Your task to perform on an android device: open app "Messages" (install if not already installed) and enter user name: "Hersey@inbox.com" and password: "facings" Image 0: 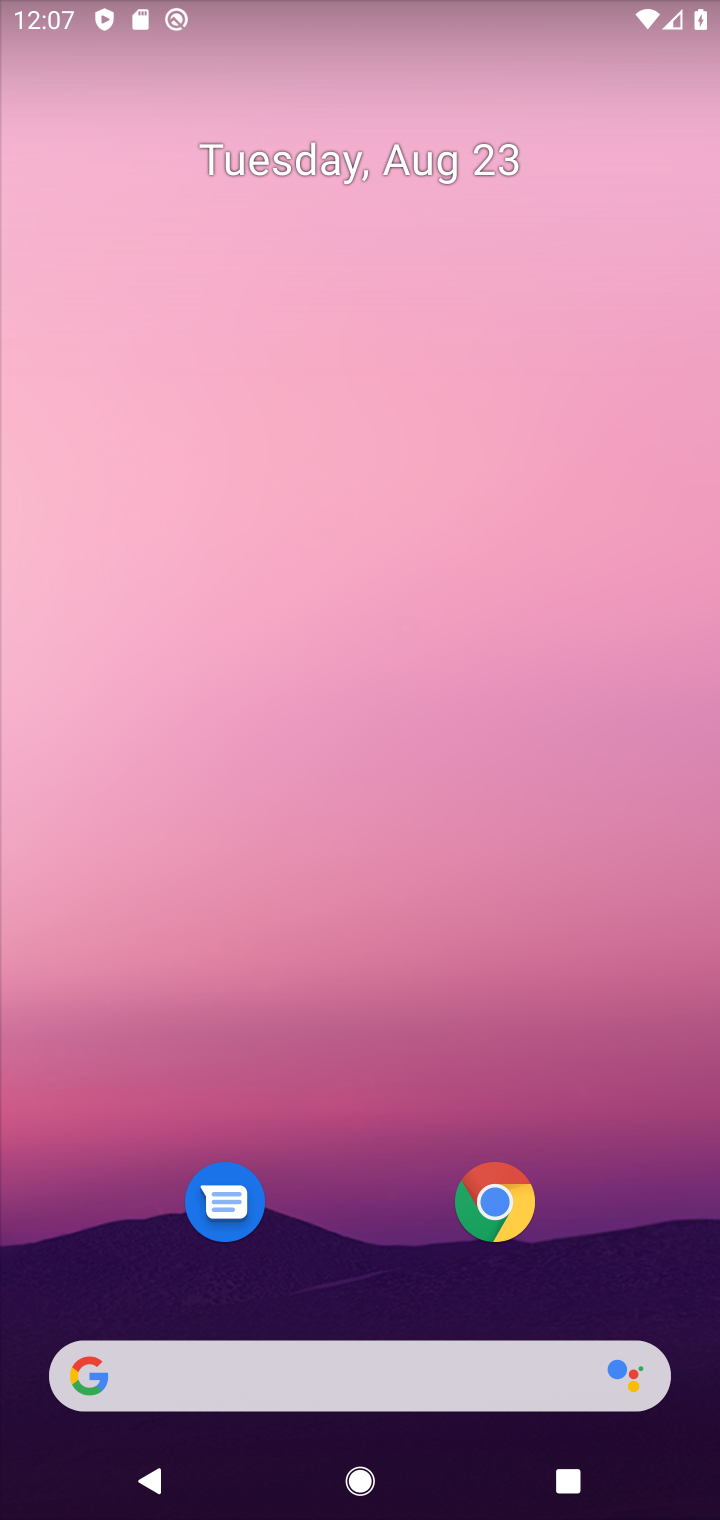
Step 0: drag from (310, 1364) to (340, 263)
Your task to perform on an android device: open app "Messages" (install if not already installed) and enter user name: "Hersey@inbox.com" and password: "facings" Image 1: 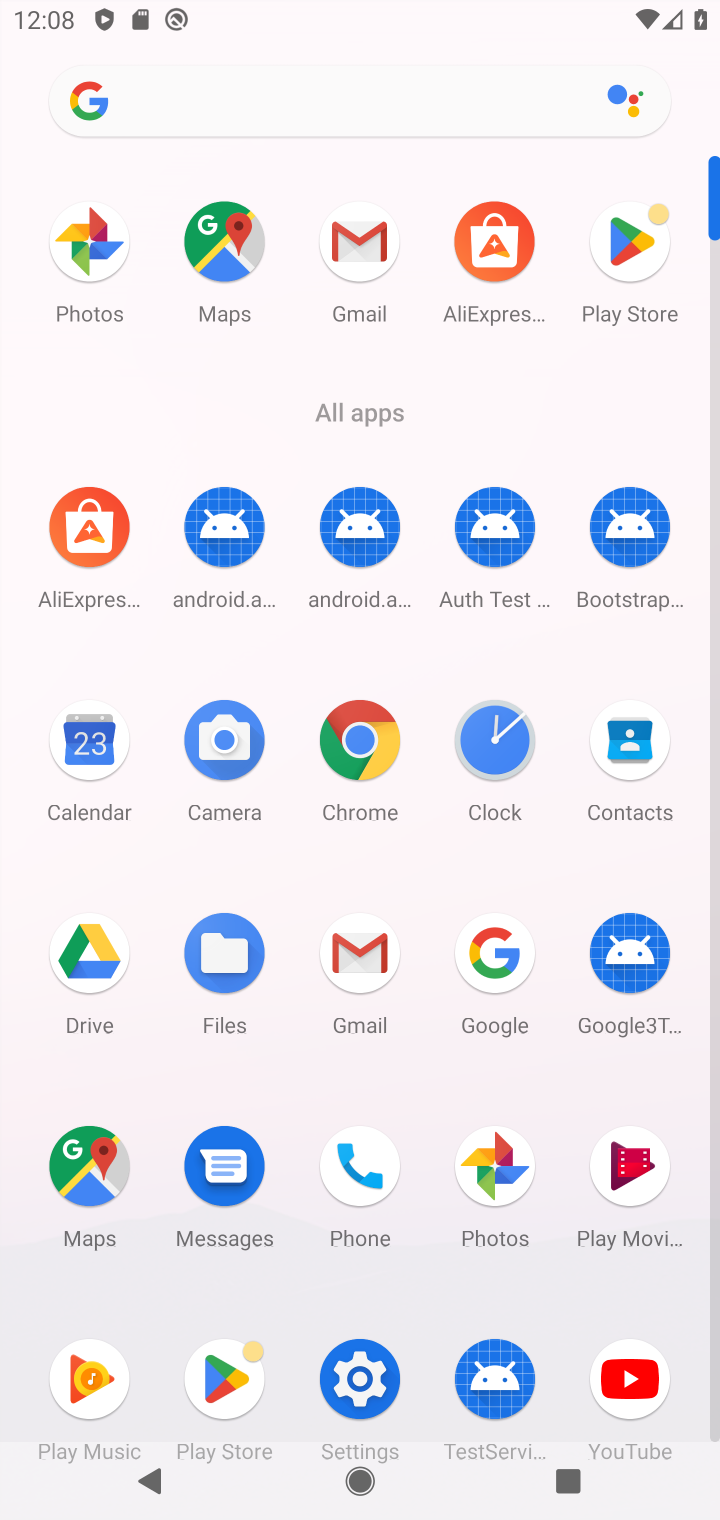
Step 1: click (614, 277)
Your task to perform on an android device: open app "Messages" (install if not already installed) and enter user name: "Hersey@inbox.com" and password: "facings" Image 2: 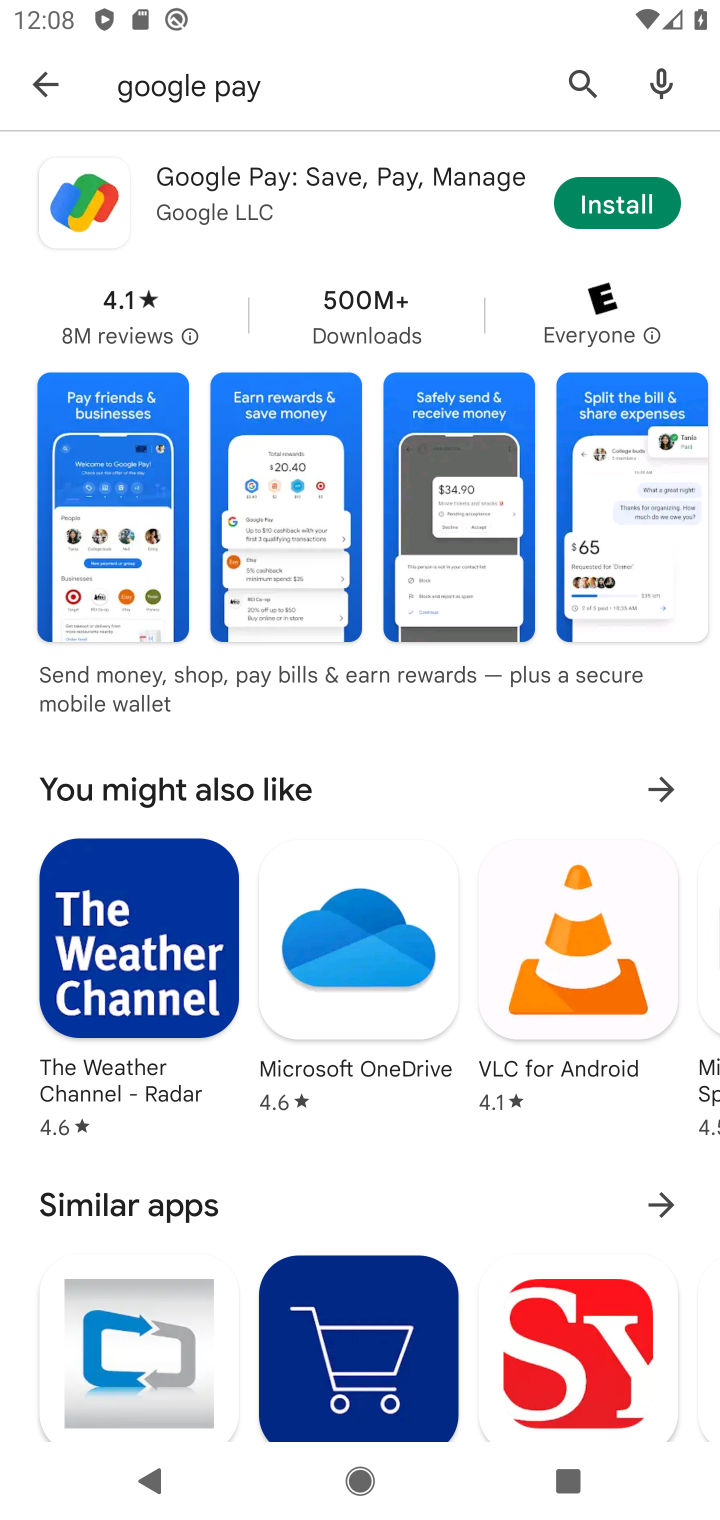
Step 2: click (577, 82)
Your task to perform on an android device: open app "Messages" (install if not already installed) and enter user name: "Hersey@inbox.com" and password: "facings" Image 3: 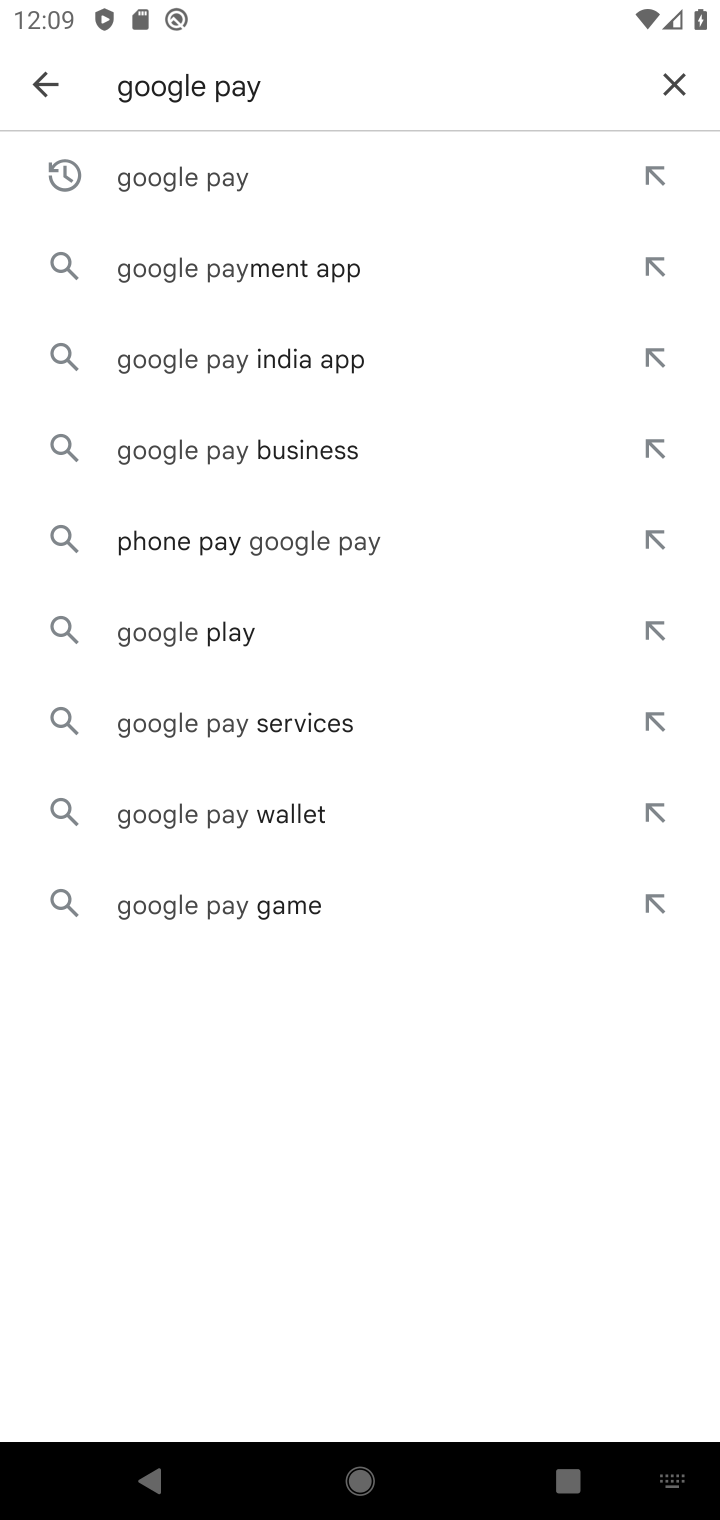
Step 3: click (662, 88)
Your task to perform on an android device: open app "Messages" (install if not already installed) and enter user name: "Hersey@inbox.com" and password: "facings" Image 4: 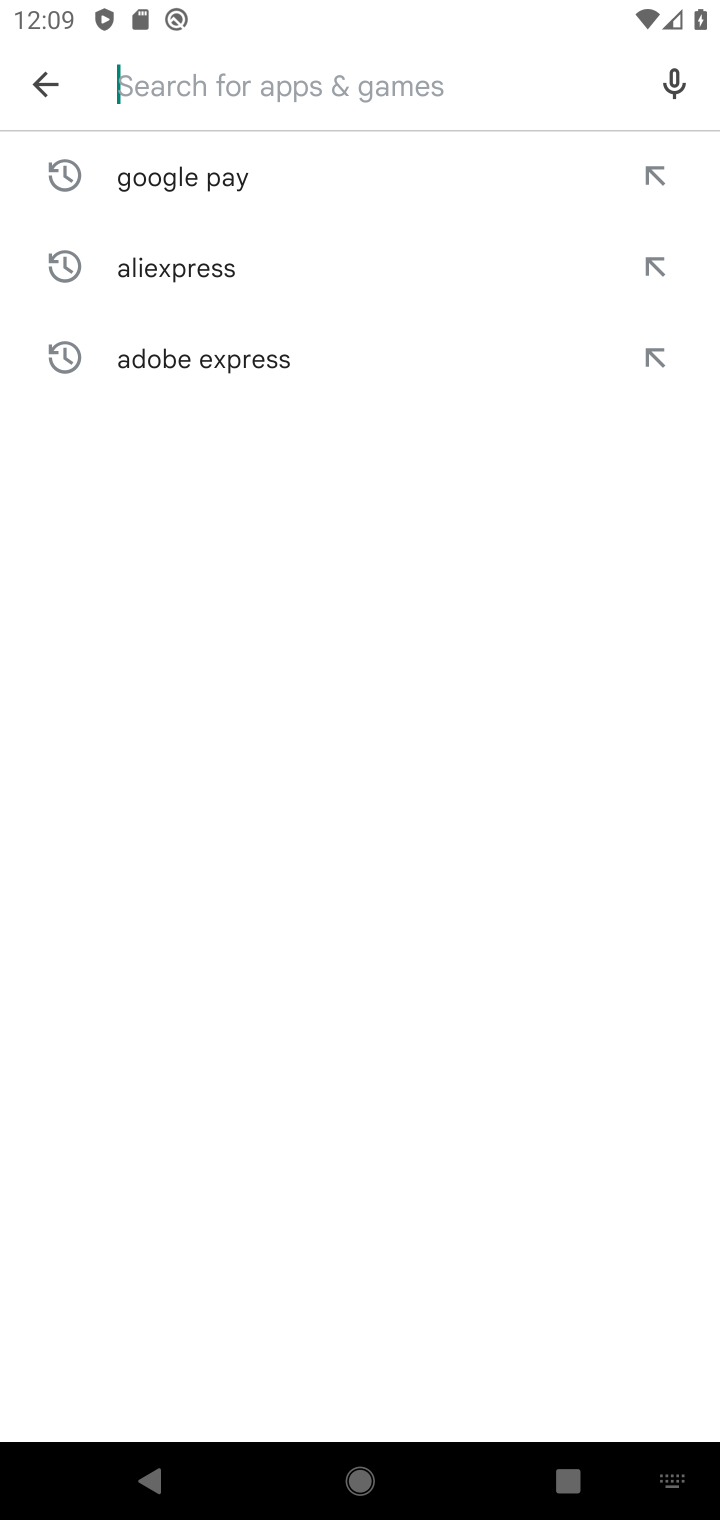
Step 4: type "messages"
Your task to perform on an android device: open app "Messages" (install if not already installed) and enter user name: "Hersey@inbox.com" and password: "facings" Image 5: 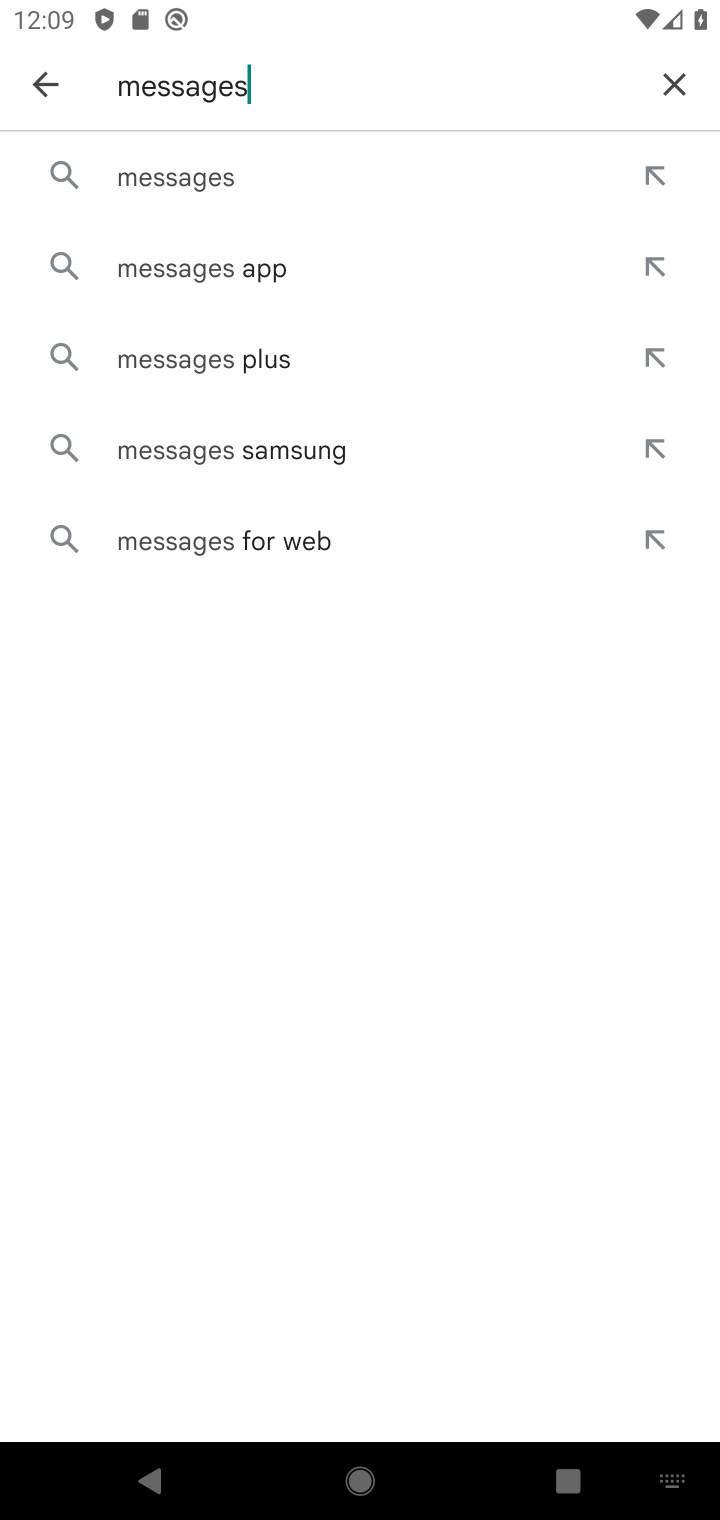
Step 5: click (199, 190)
Your task to perform on an android device: open app "Messages" (install if not already installed) and enter user name: "Hersey@inbox.com" and password: "facings" Image 6: 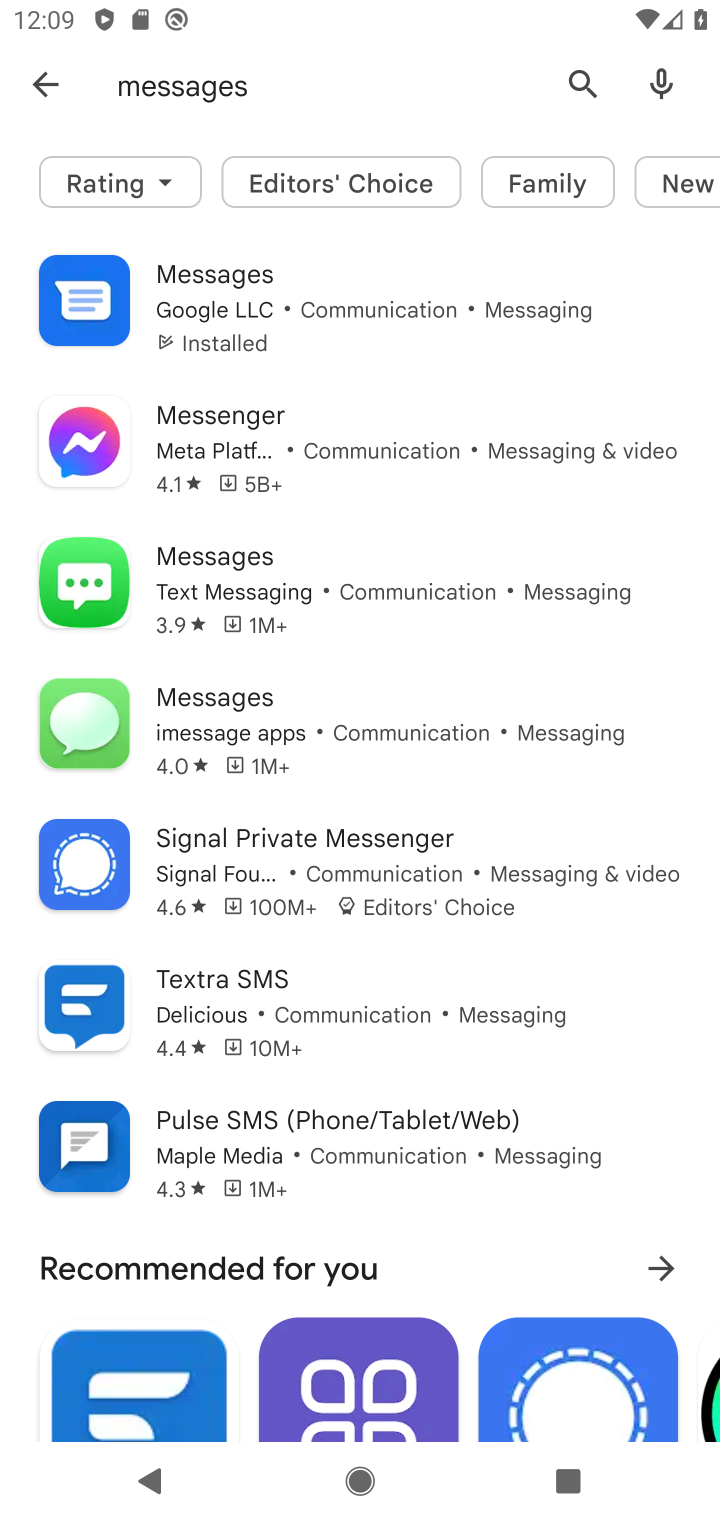
Step 6: click (274, 350)
Your task to perform on an android device: open app "Messages" (install if not already installed) and enter user name: "Hersey@inbox.com" and password: "facings" Image 7: 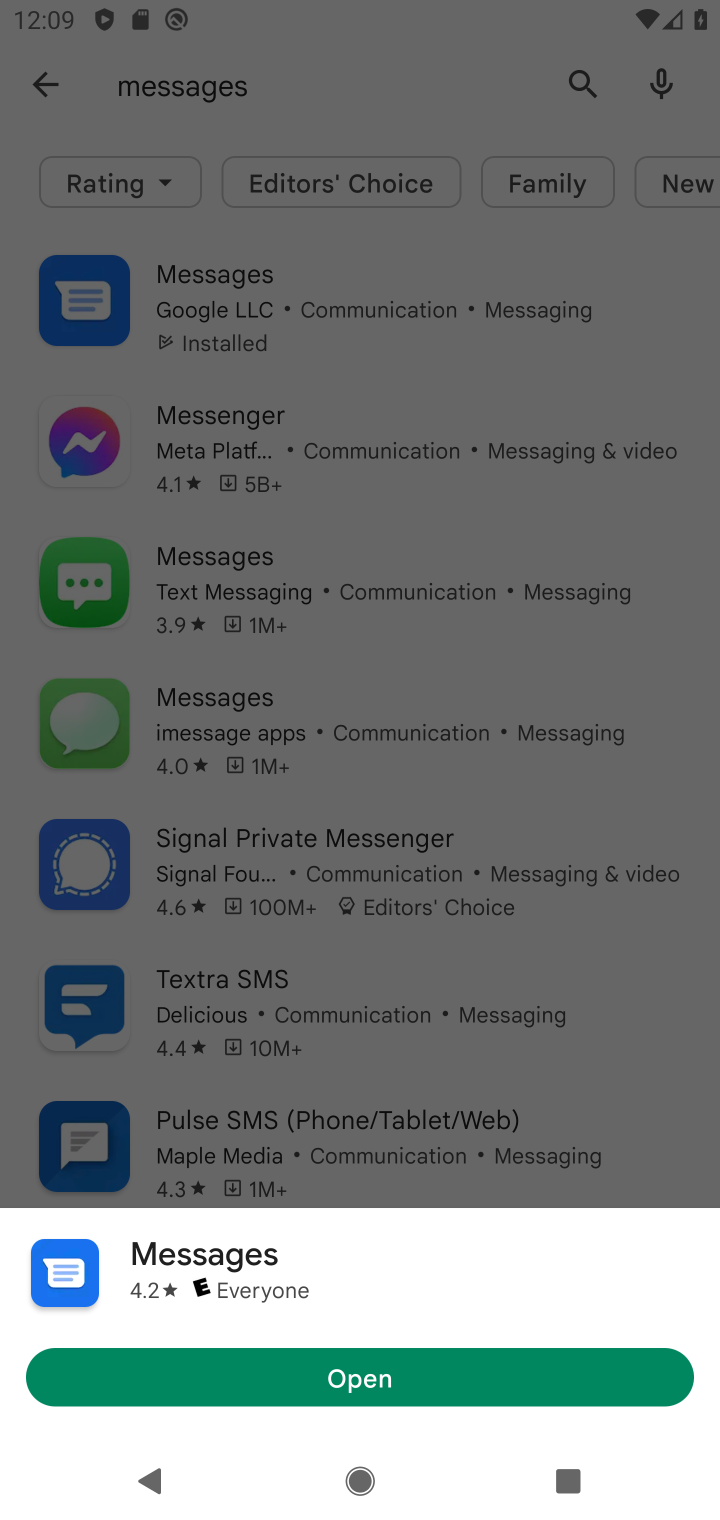
Step 7: click (428, 1384)
Your task to perform on an android device: open app "Messages" (install if not already installed) and enter user name: "Hersey@inbox.com" and password: "facings" Image 8: 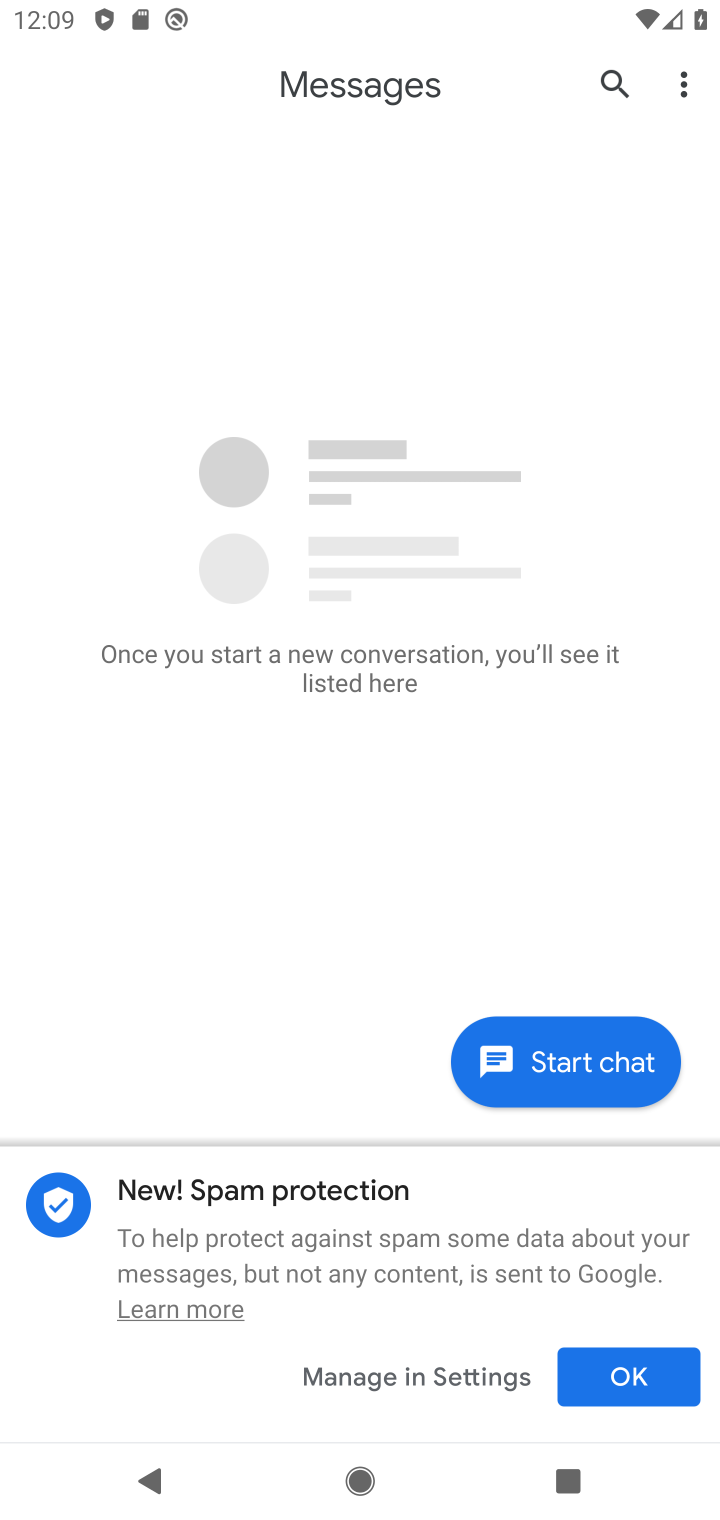
Step 8: task complete